Your task to perform on an android device: allow cookies in the chrome app Image 0: 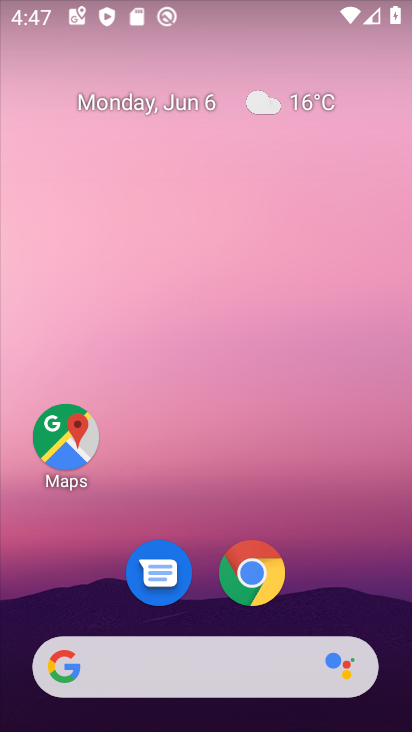
Step 0: click (251, 571)
Your task to perform on an android device: allow cookies in the chrome app Image 1: 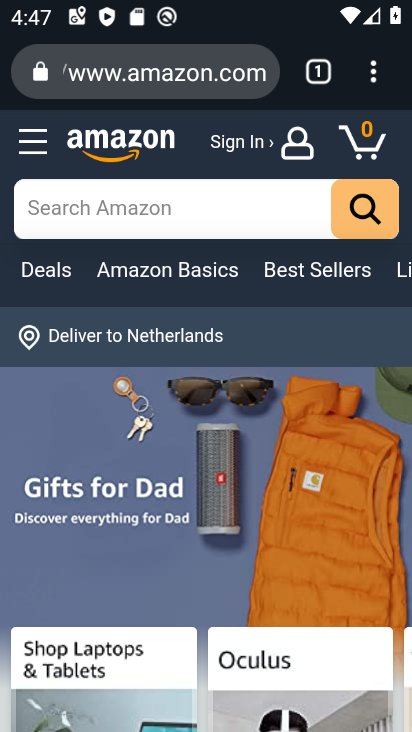
Step 1: click (375, 70)
Your task to perform on an android device: allow cookies in the chrome app Image 2: 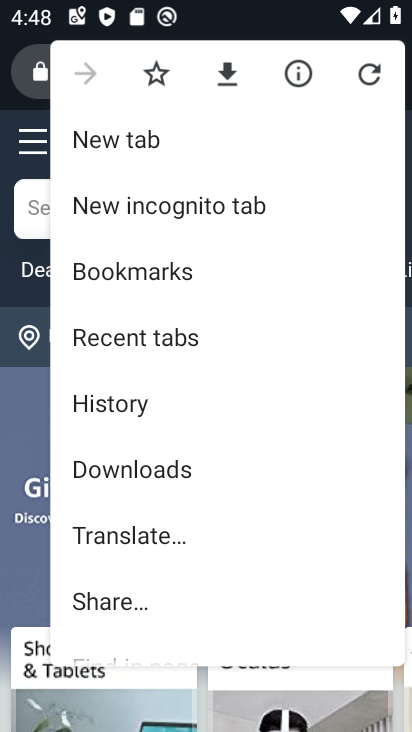
Step 2: drag from (151, 570) to (237, 410)
Your task to perform on an android device: allow cookies in the chrome app Image 3: 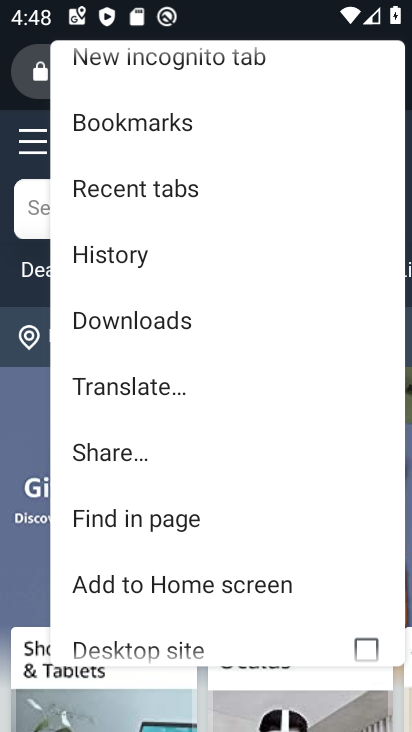
Step 3: drag from (176, 567) to (249, 441)
Your task to perform on an android device: allow cookies in the chrome app Image 4: 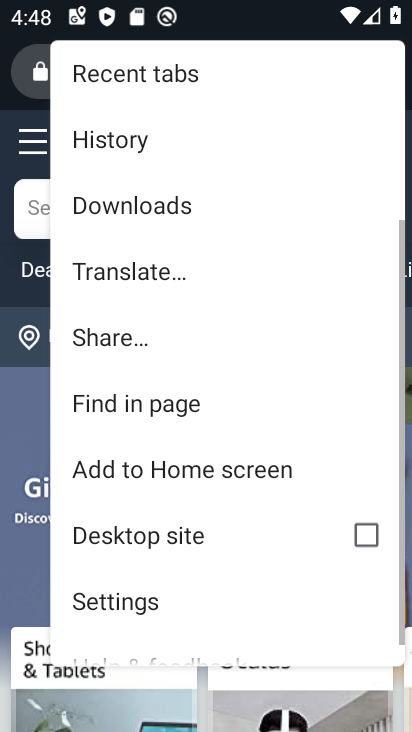
Step 4: drag from (186, 575) to (279, 391)
Your task to perform on an android device: allow cookies in the chrome app Image 5: 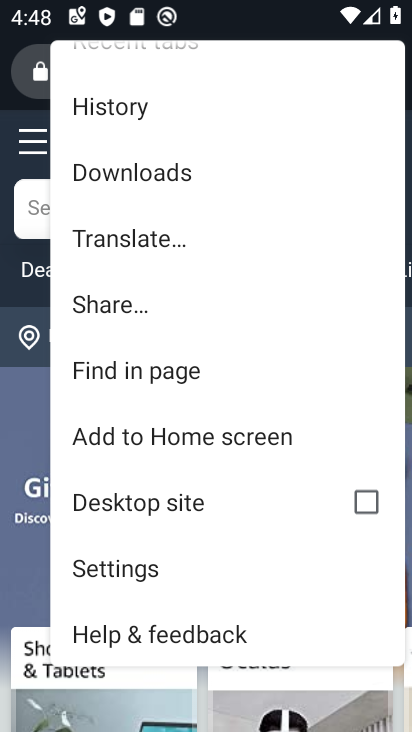
Step 5: click (152, 574)
Your task to perform on an android device: allow cookies in the chrome app Image 6: 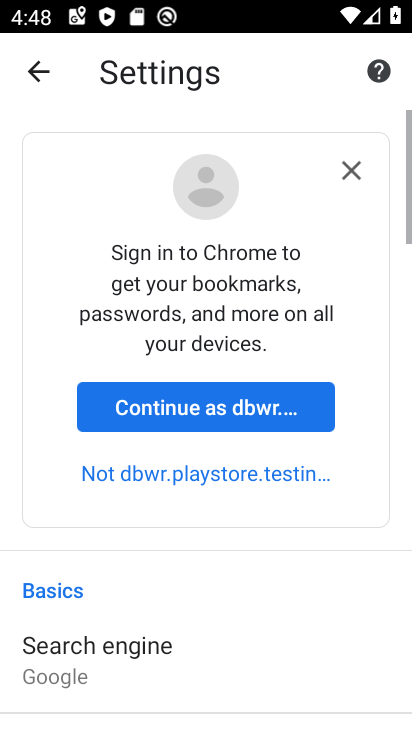
Step 6: drag from (165, 596) to (255, 406)
Your task to perform on an android device: allow cookies in the chrome app Image 7: 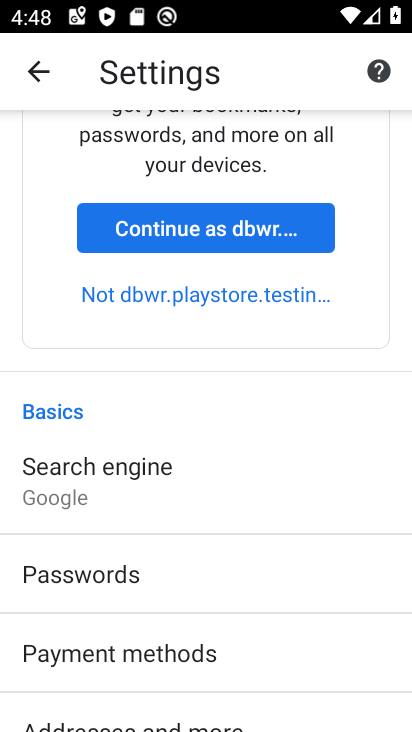
Step 7: drag from (193, 637) to (276, 461)
Your task to perform on an android device: allow cookies in the chrome app Image 8: 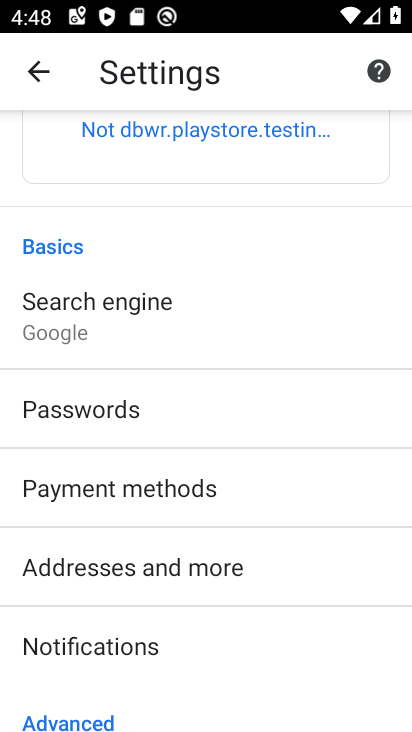
Step 8: drag from (188, 647) to (277, 460)
Your task to perform on an android device: allow cookies in the chrome app Image 9: 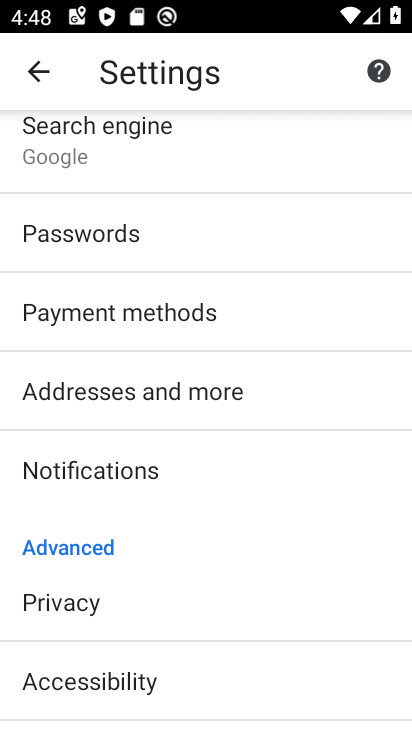
Step 9: drag from (187, 691) to (285, 533)
Your task to perform on an android device: allow cookies in the chrome app Image 10: 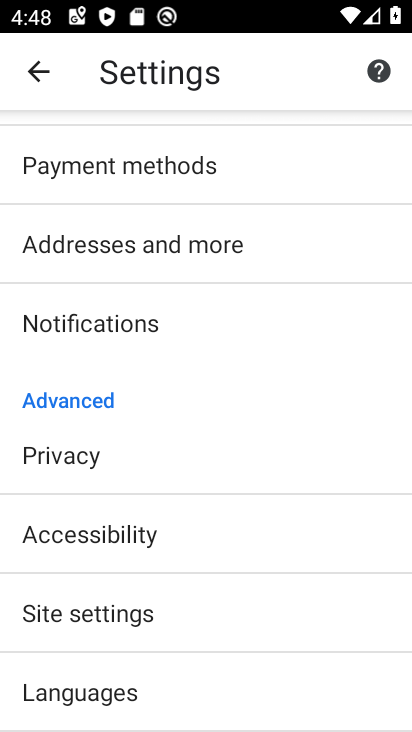
Step 10: click (135, 618)
Your task to perform on an android device: allow cookies in the chrome app Image 11: 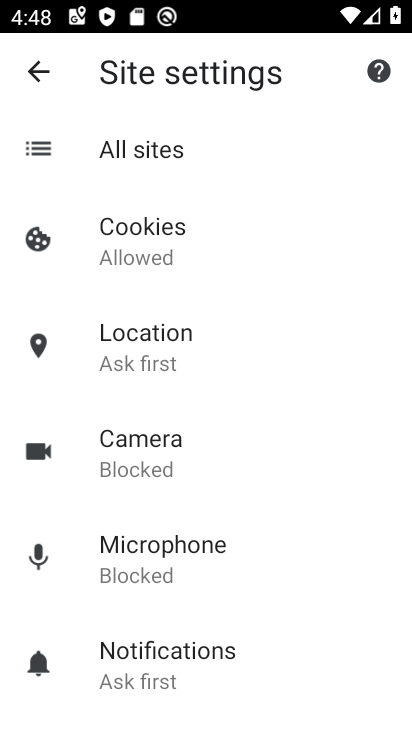
Step 11: click (172, 248)
Your task to perform on an android device: allow cookies in the chrome app Image 12: 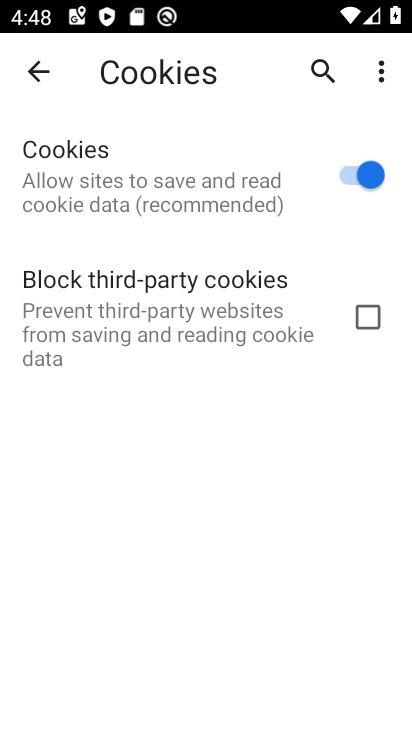
Step 12: click (353, 308)
Your task to perform on an android device: allow cookies in the chrome app Image 13: 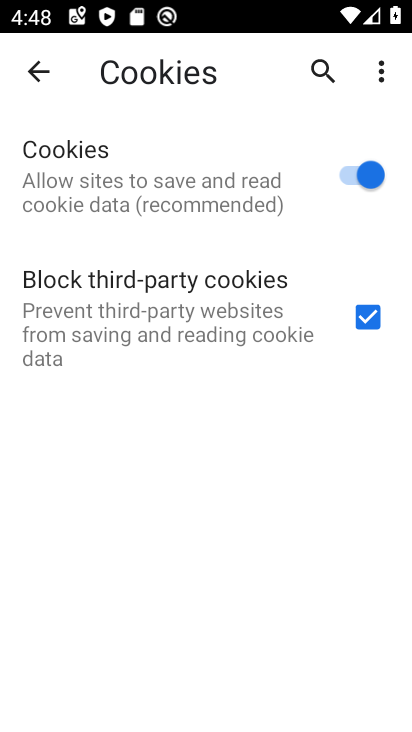
Step 13: task complete